Your task to perform on an android device: Open wifi settings Image 0: 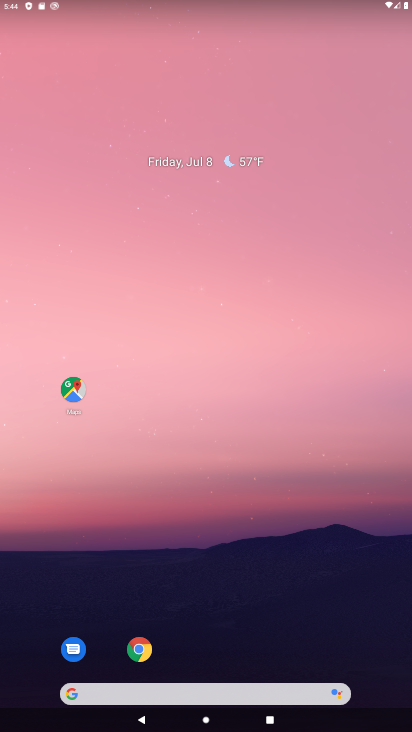
Step 0: drag from (208, 596) to (235, 58)
Your task to perform on an android device: Open wifi settings Image 1: 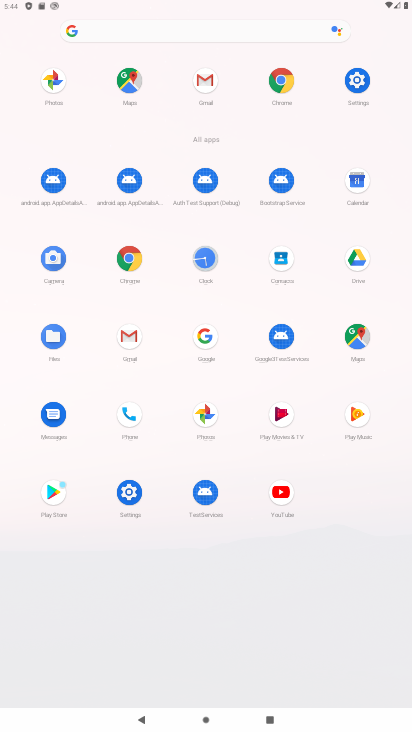
Step 1: click (352, 89)
Your task to perform on an android device: Open wifi settings Image 2: 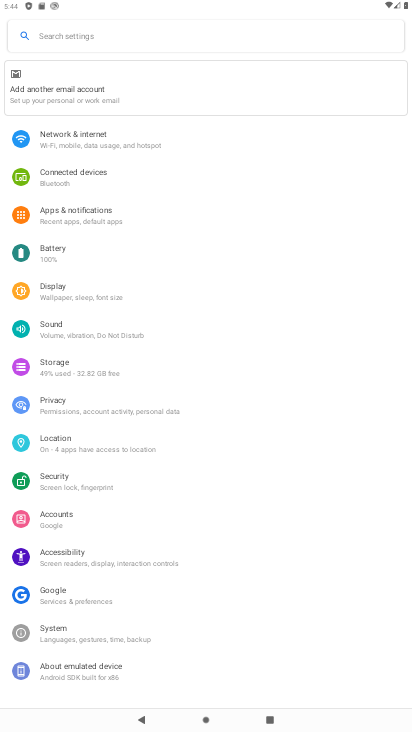
Step 2: click (104, 144)
Your task to perform on an android device: Open wifi settings Image 3: 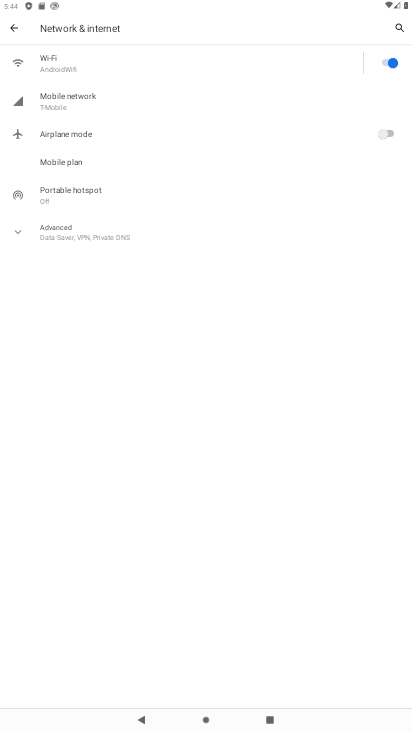
Step 3: click (78, 67)
Your task to perform on an android device: Open wifi settings Image 4: 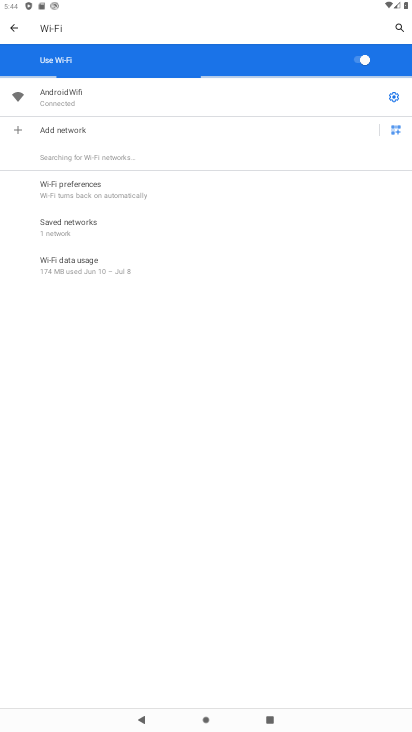
Step 4: task complete